Your task to perform on an android device: show emergency info Image 0: 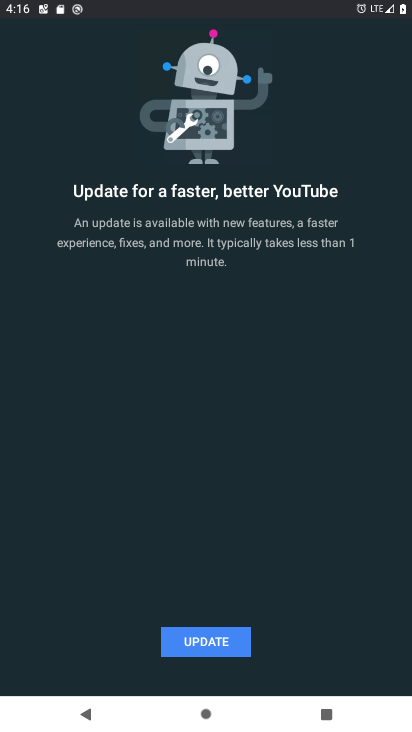
Step 0: press home button
Your task to perform on an android device: show emergency info Image 1: 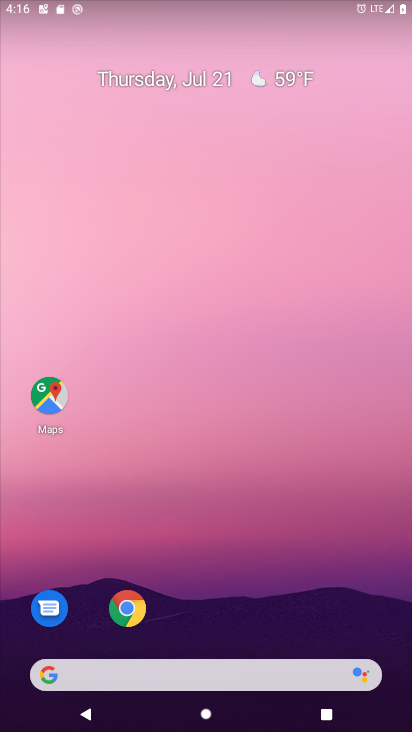
Step 1: drag from (279, 664) to (311, 50)
Your task to perform on an android device: show emergency info Image 2: 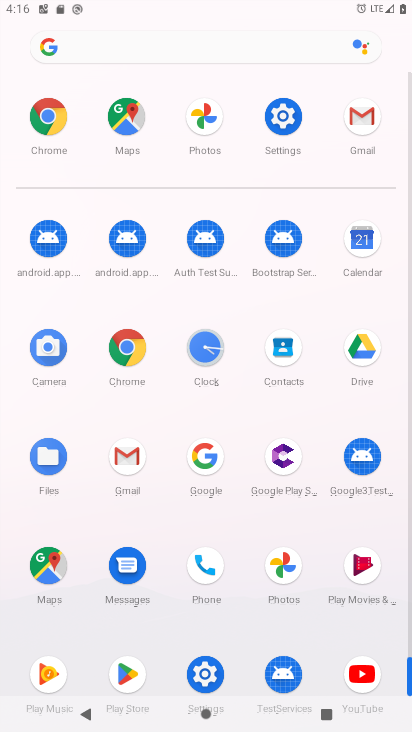
Step 2: click (295, 111)
Your task to perform on an android device: show emergency info Image 3: 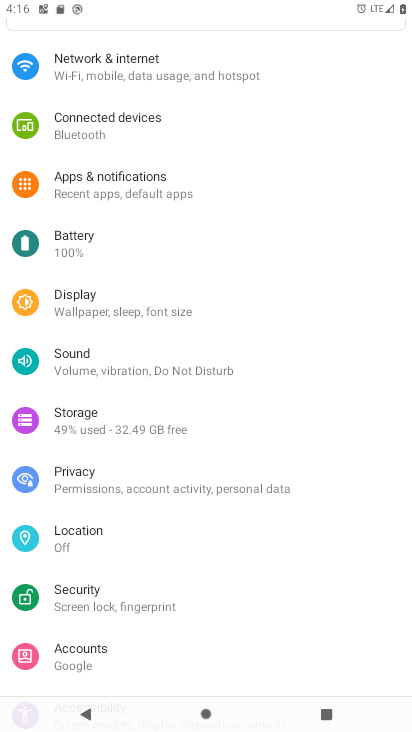
Step 3: drag from (137, 660) to (223, 137)
Your task to perform on an android device: show emergency info Image 4: 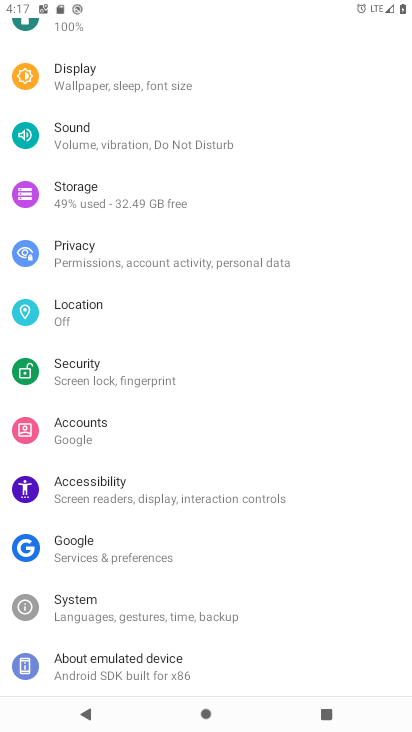
Step 4: click (167, 679)
Your task to perform on an android device: show emergency info Image 5: 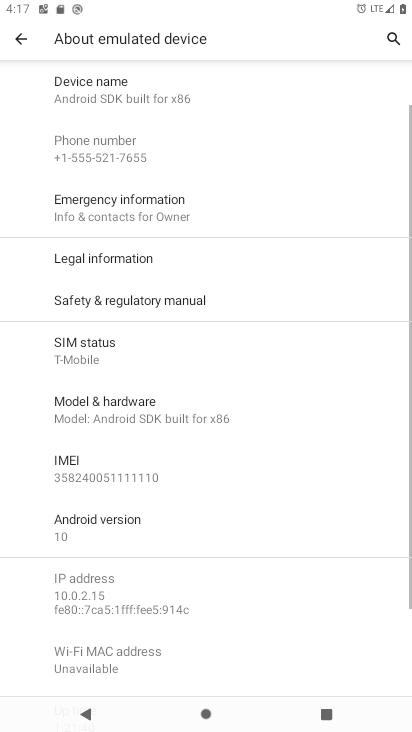
Step 5: drag from (136, 624) to (163, 349)
Your task to perform on an android device: show emergency info Image 6: 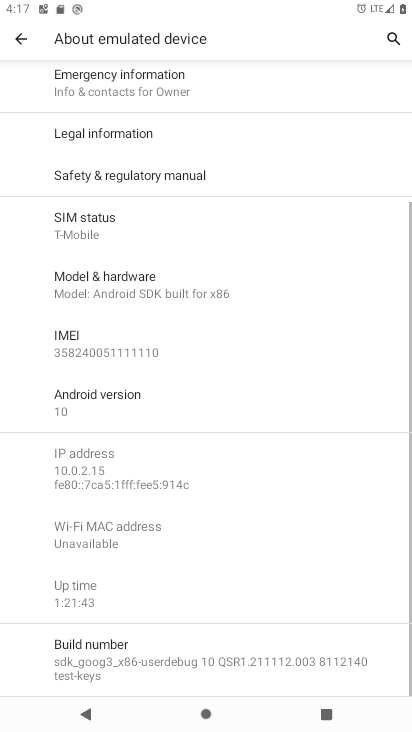
Step 6: drag from (170, 212) to (140, 529)
Your task to perform on an android device: show emergency info Image 7: 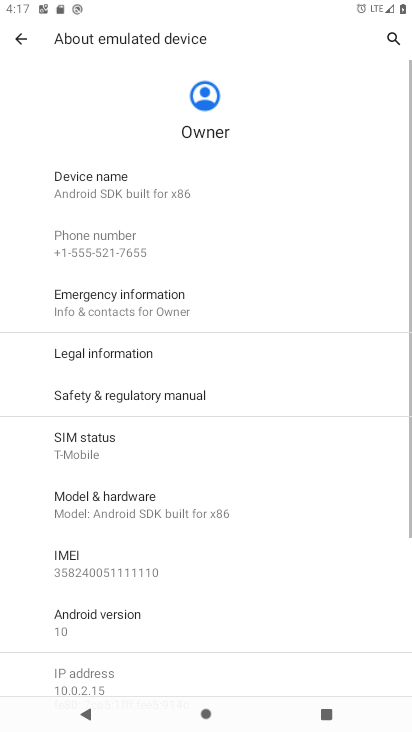
Step 7: click (140, 310)
Your task to perform on an android device: show emergency info Image 8: 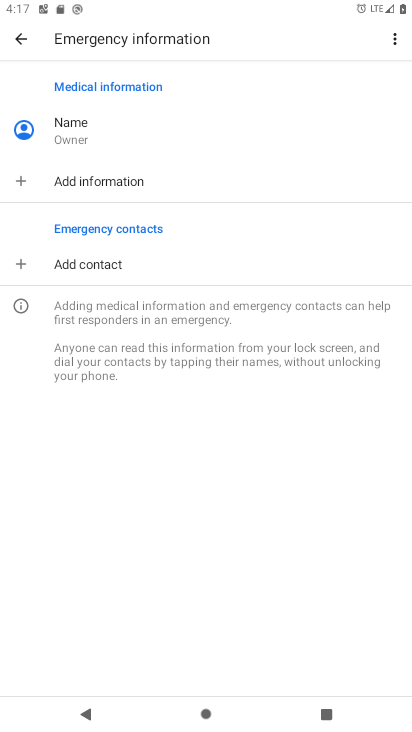
Step 8: task complete